Your task to perform on an android device: check data usage Image 0: 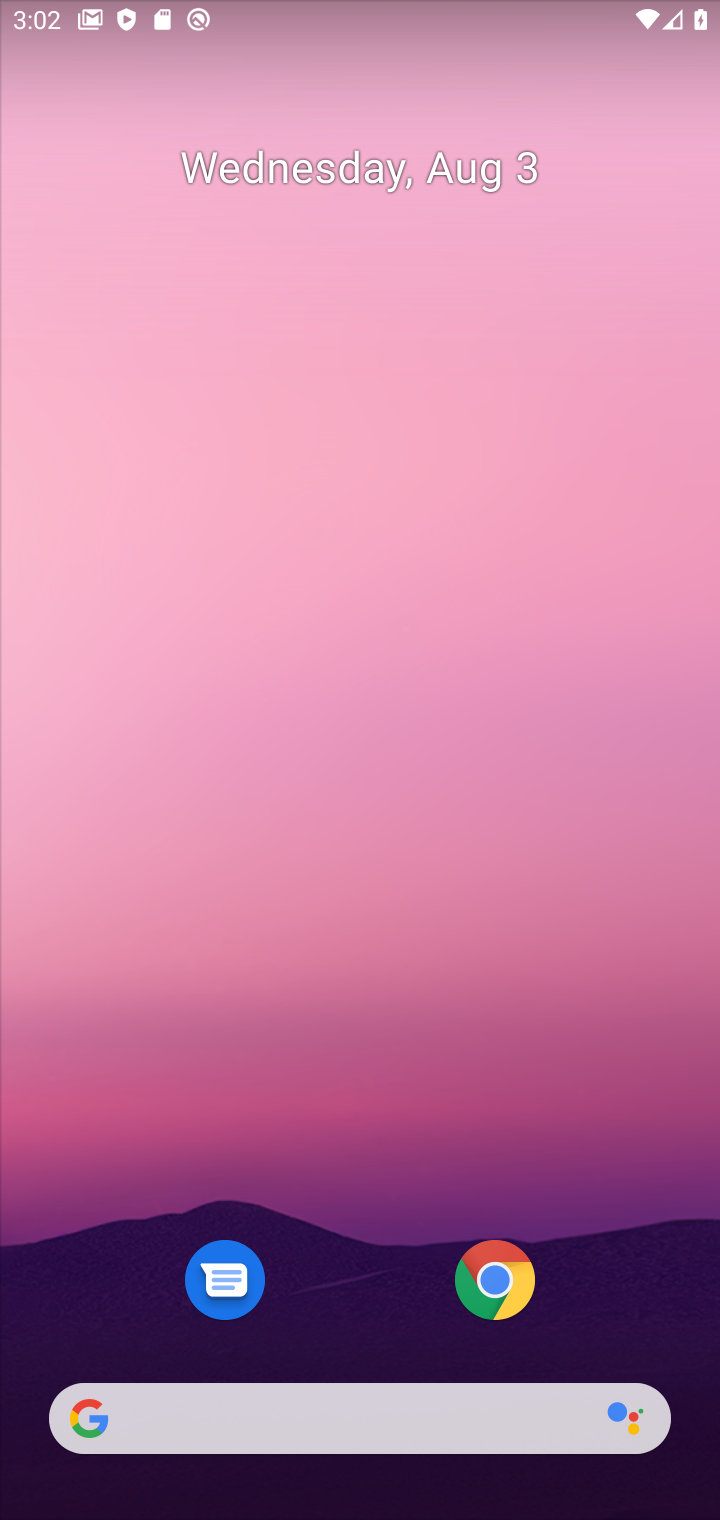
Step 0: drag from (380, 1176) to (211, 355)
Your task to perform on an android device: check data usage Image 1: 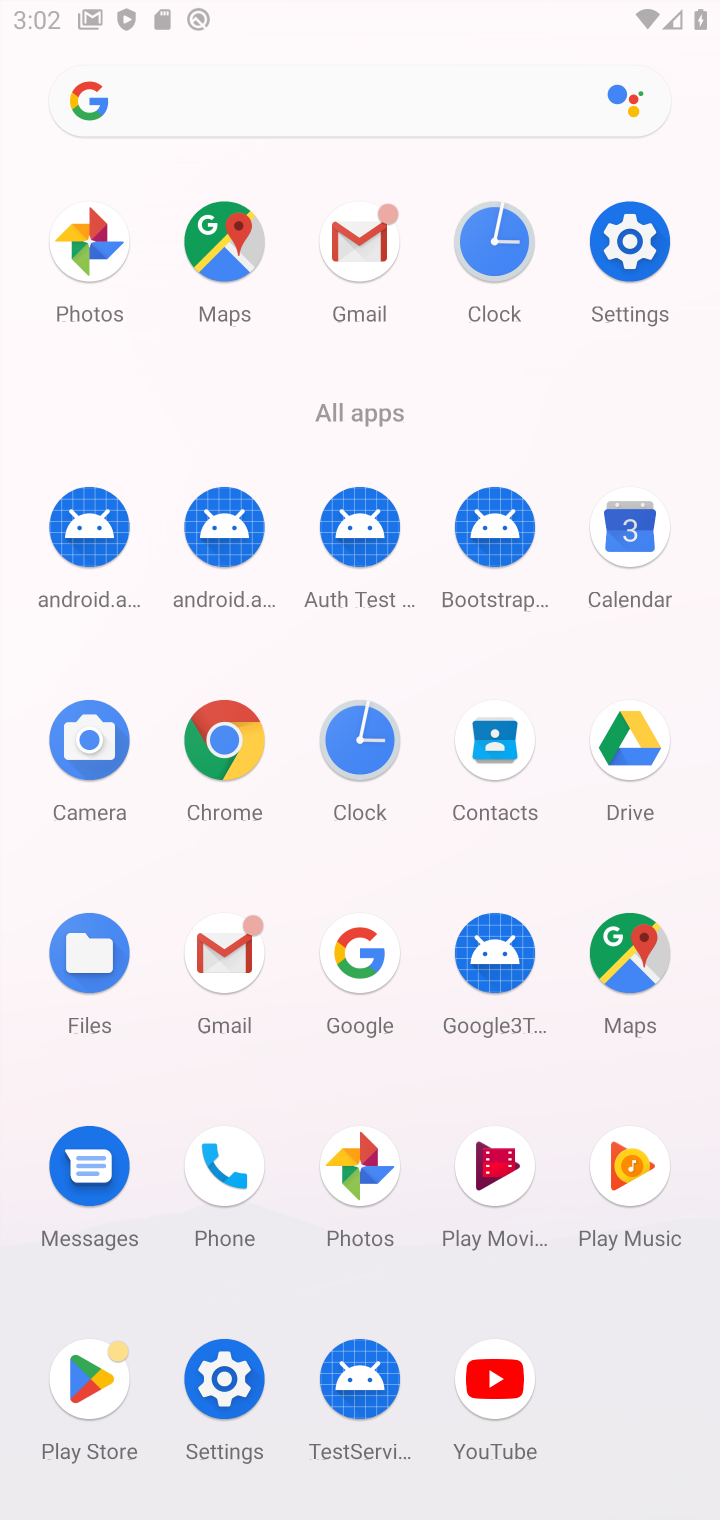
Step 1: click (318, 392)
Your task to perform on an android device: check data usage Image 2: 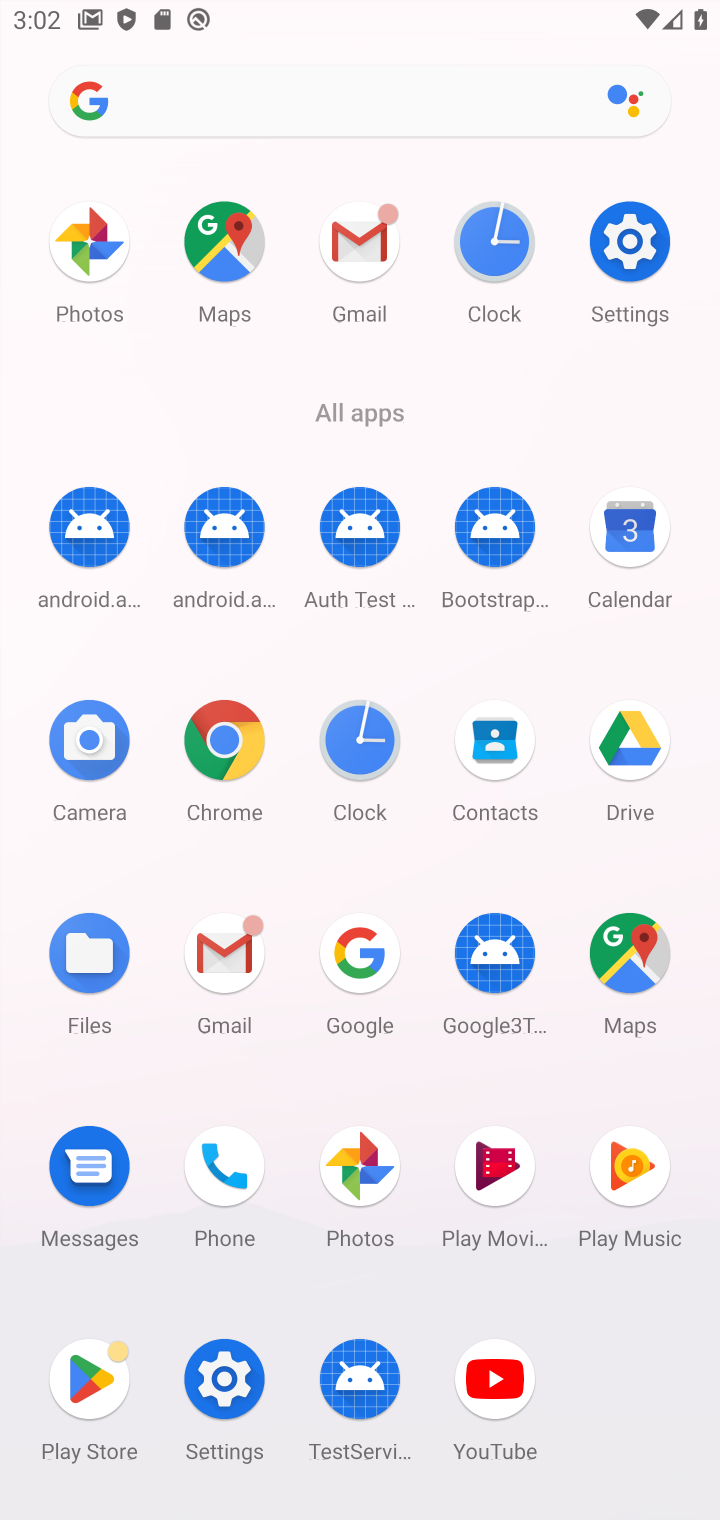
Step 2: click (608, 251)
Your task to perform on an android device: check data usage Image 3: 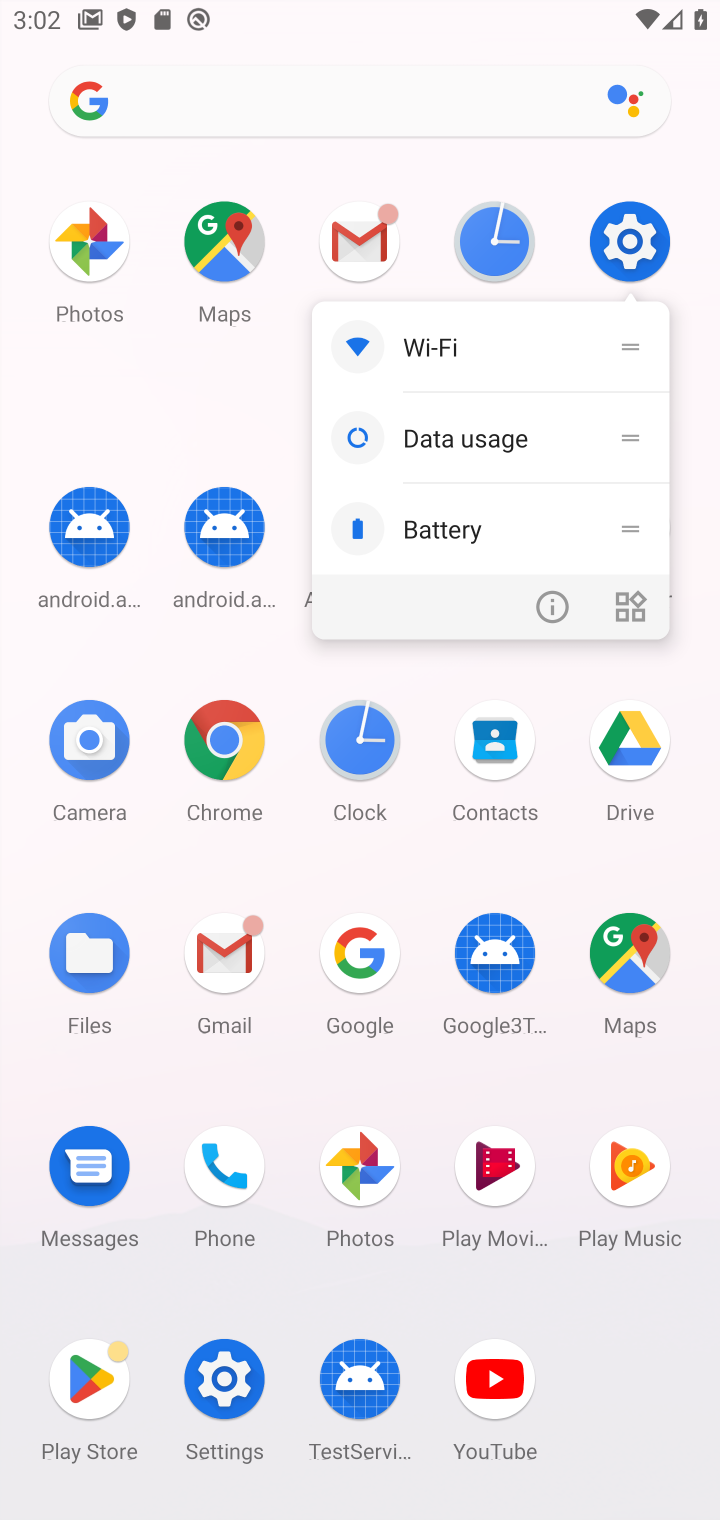
Step 3: click (499, 442)
Your task to perform on an android device: check data usage Image 4: 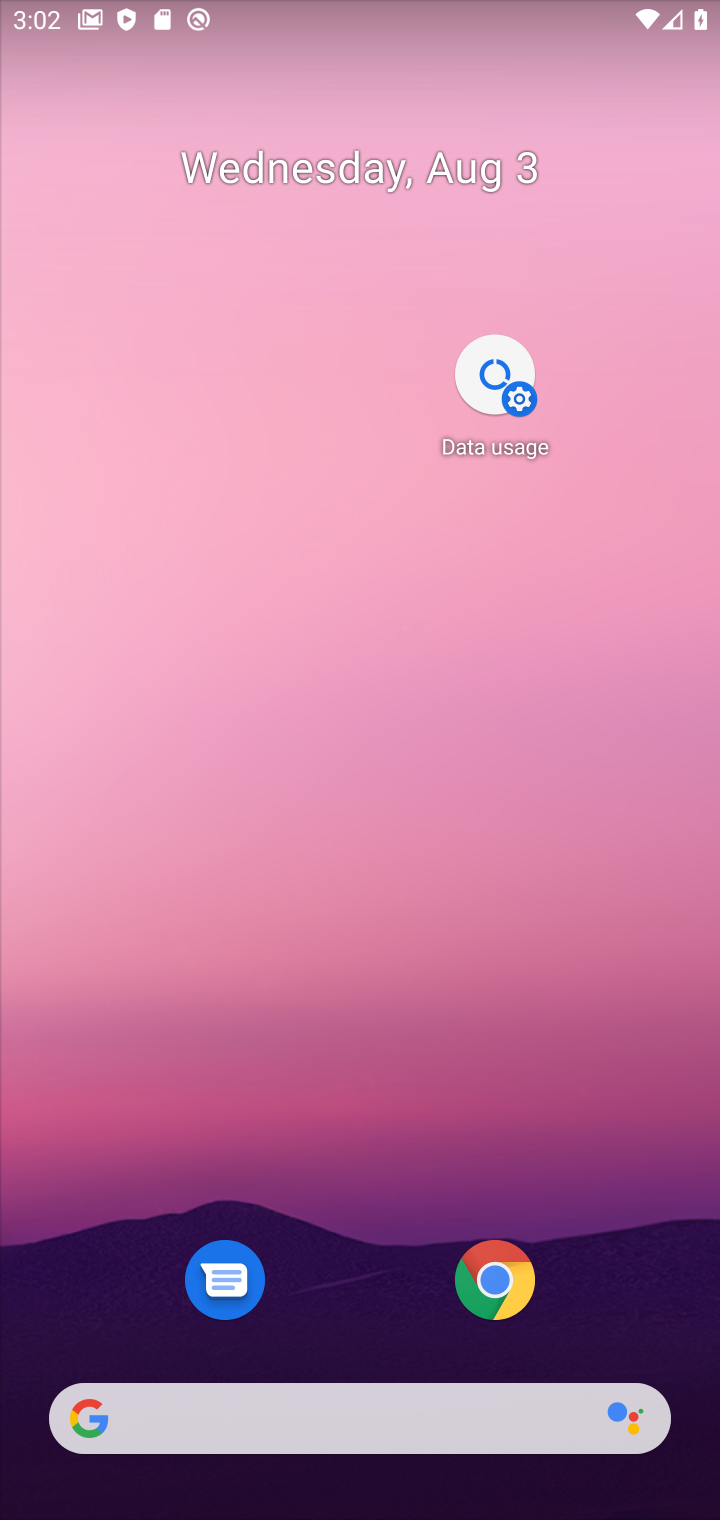
Step 4: drag from (316, 1188) to (319, 645)
Your task to perform on an android device: check data usage Image 5: 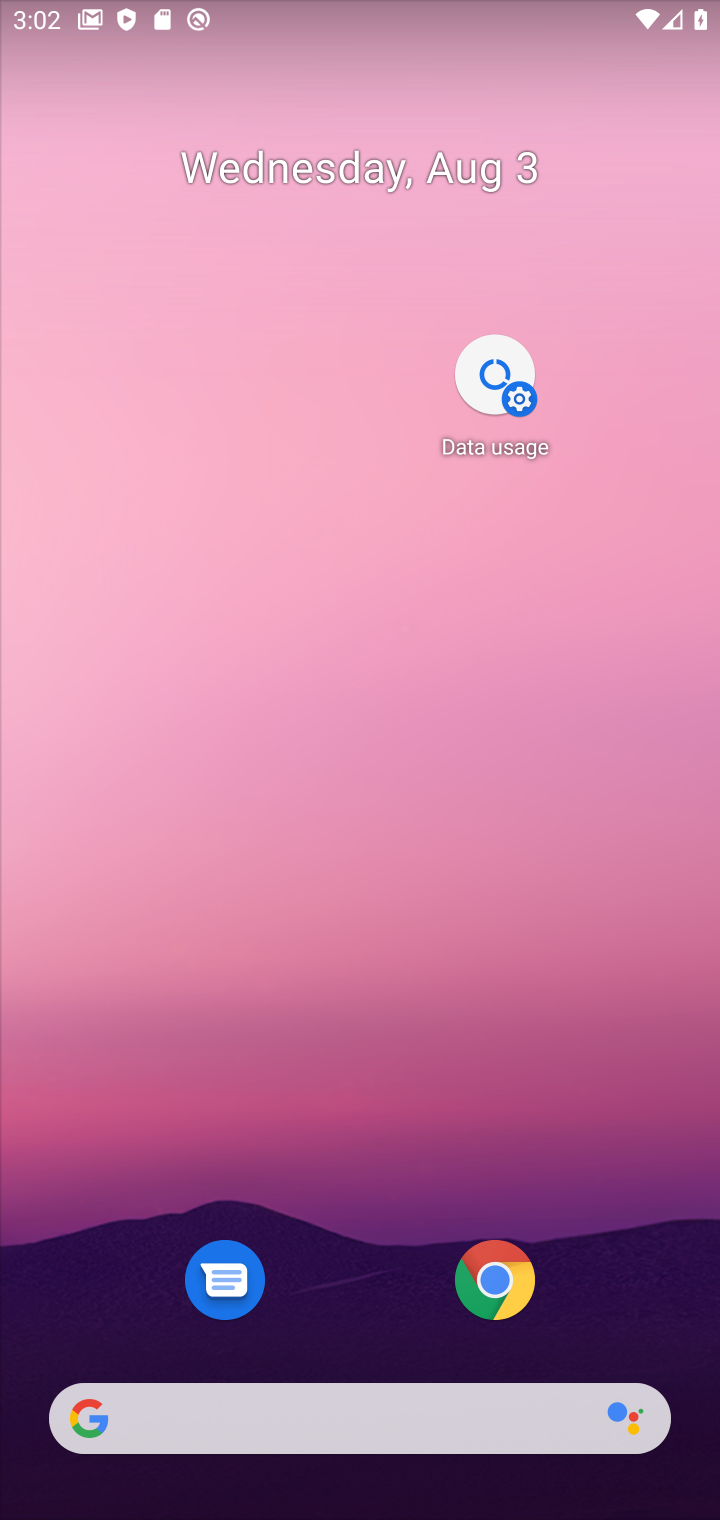
Step 5: click (251, 244)
Your task to perform on an android device: check data usage Image 6: 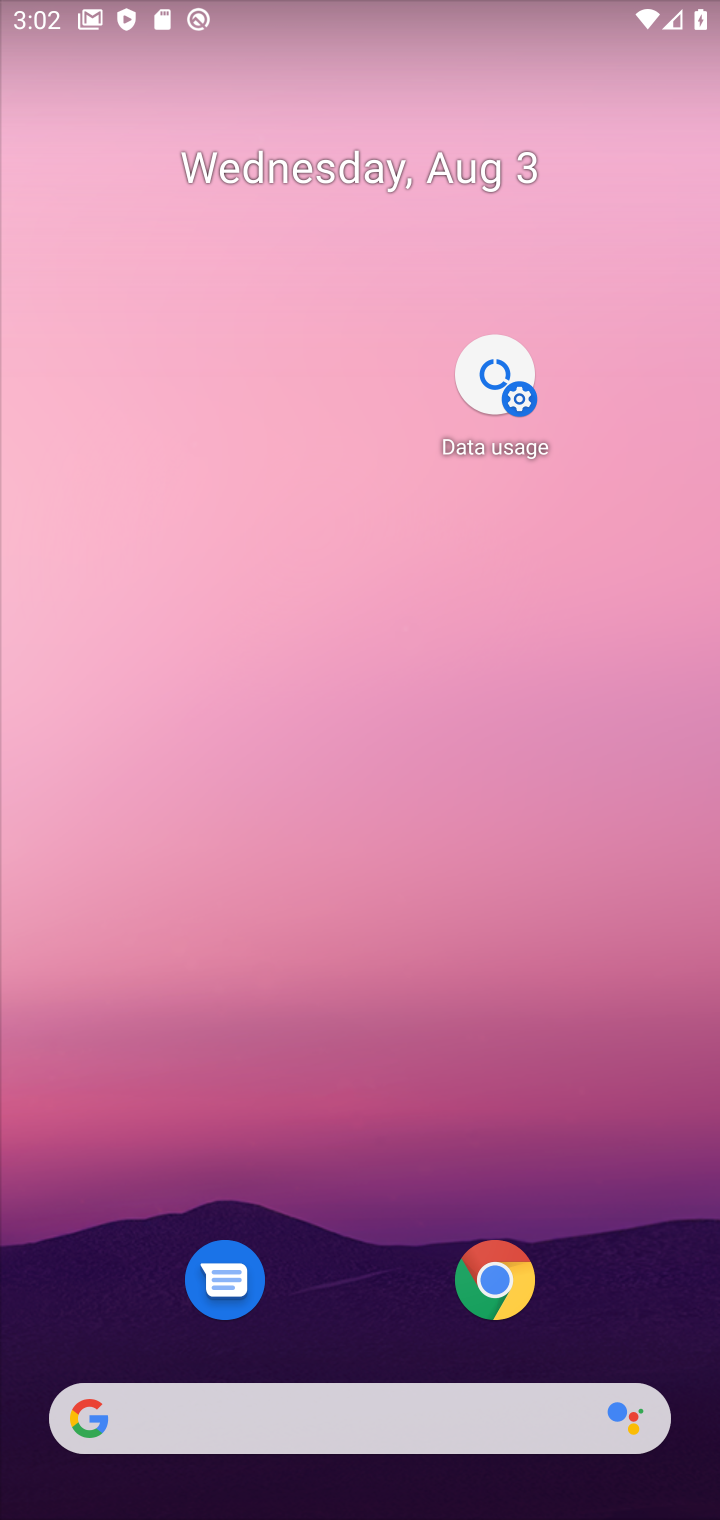
Step 6: drag from (307, 458) to (387, 26)
Your task to perform on an android device: check data usage Image 7: 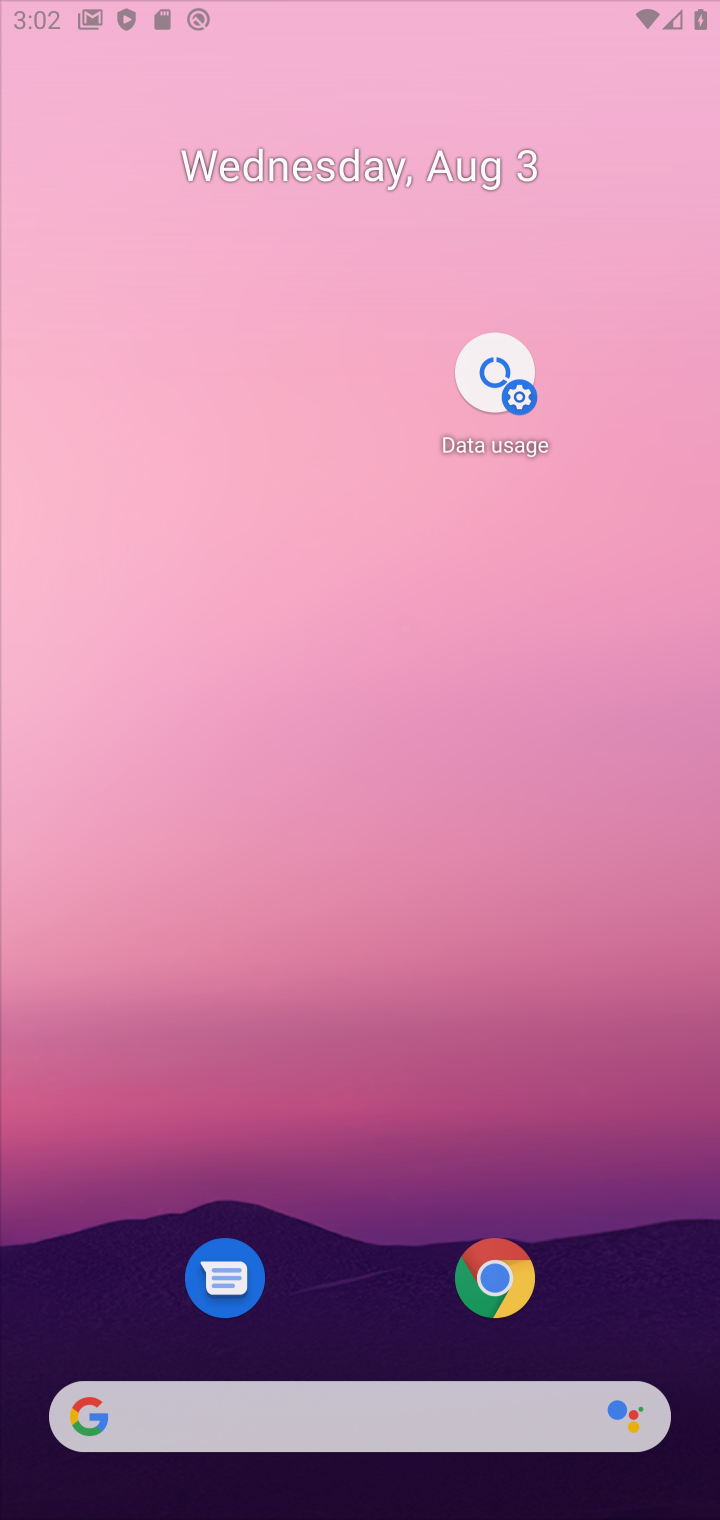
Step 7: click (515, 111)
Your task to perform on an android device: check data usage Image 8: 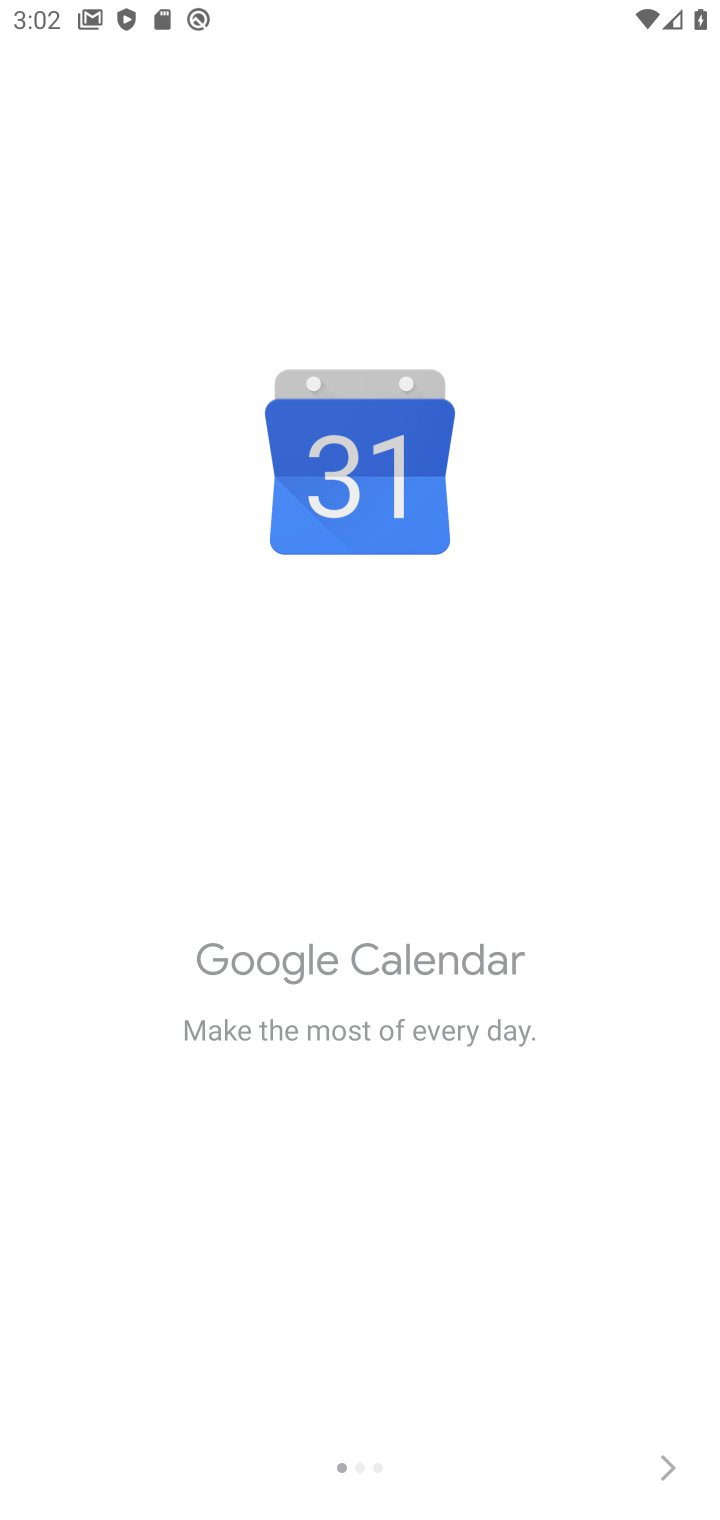
Step 8: task complete